Your task to perform on an android device: Check the weather Image 0: 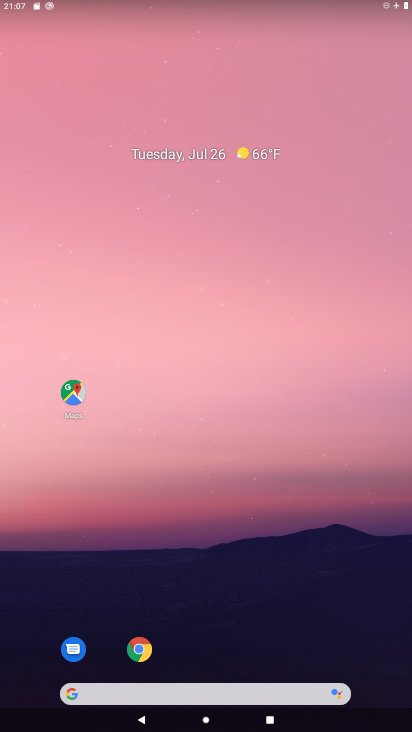
Step 0: click (240, 697)
Your task to perform on an android device: Check the weather Image 1: 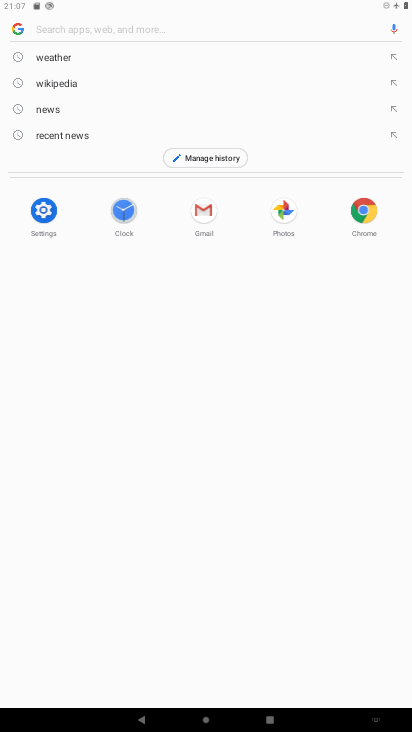
Step 1: click (74, 58)
Your task to perform on an android device: Check the weather Image 2: 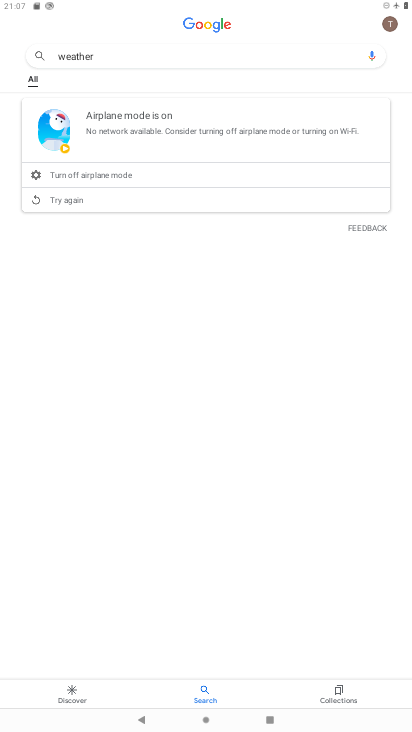
Step 2: task complete